Your task to perform on an android device: Show me recent news Image 0: 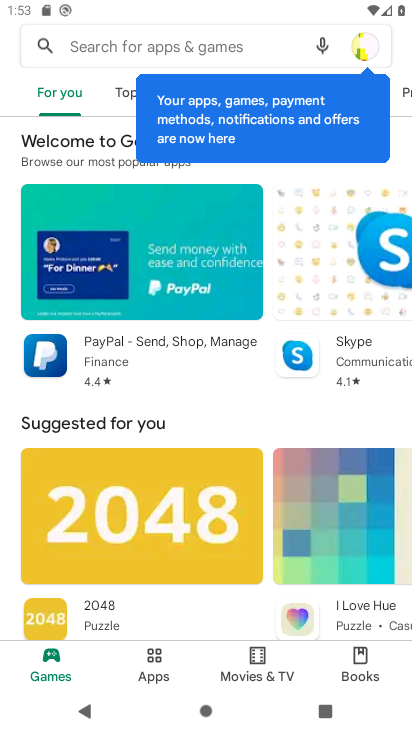
Step 0: press home button
Your task to perform on an android device: Show me recent news Image 1: 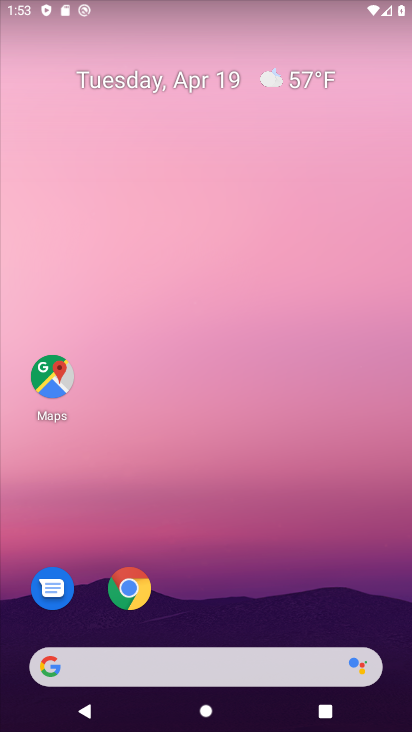
Step 1: drag from (259, 598) to (243, 102)
Your task to perform on an android device: Show me recent news Image 2: 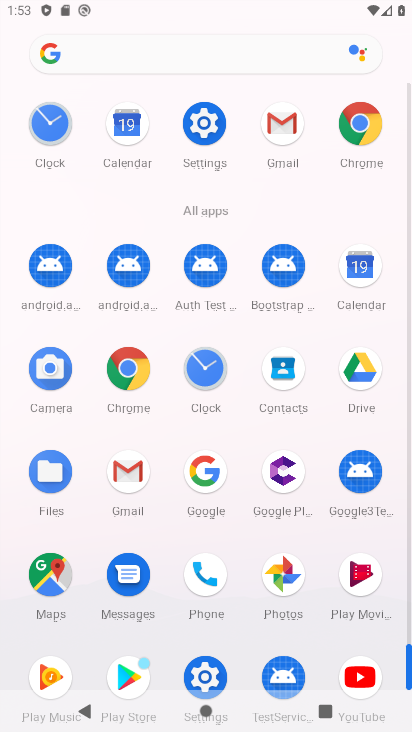
Step 2: click (201, 469)
Your task to perform on an android device: Show me recent news Image 3: 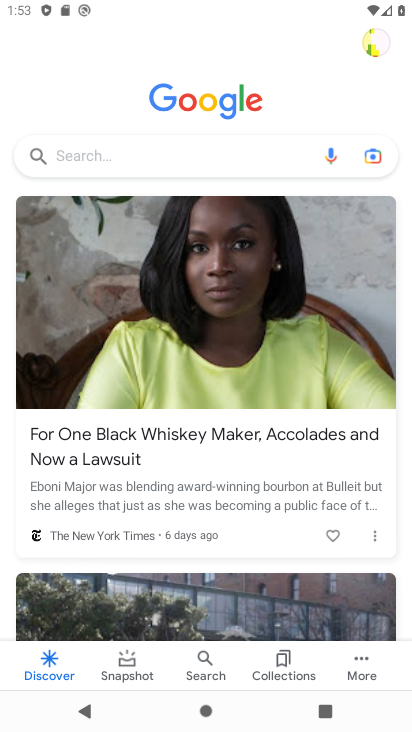
Step 3: click (211, 468)
Your task to perform on an android device: Show me recent news Image 4: 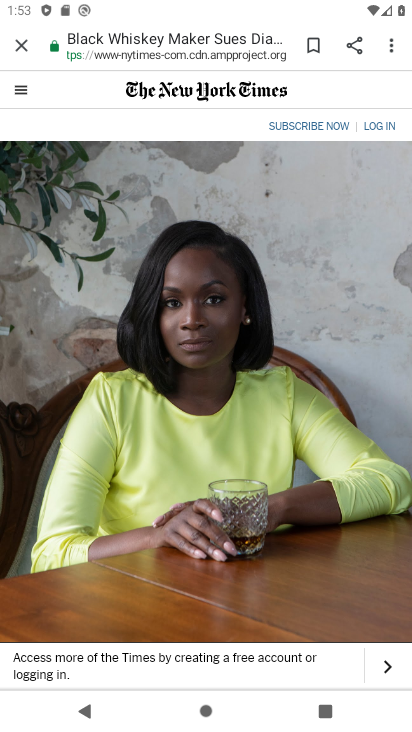
Step 4: task complete